Your task to perform on an android device: Open Google Maps Image 0: 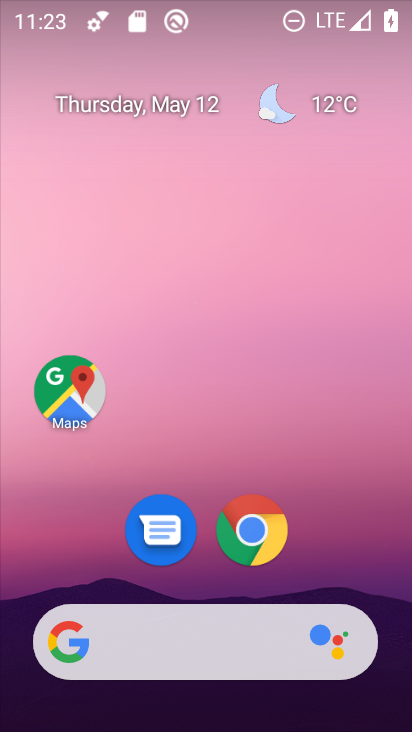
Step 0: click (69, 396)
Your task to perform on an android device: Open Google Maps Image 1: 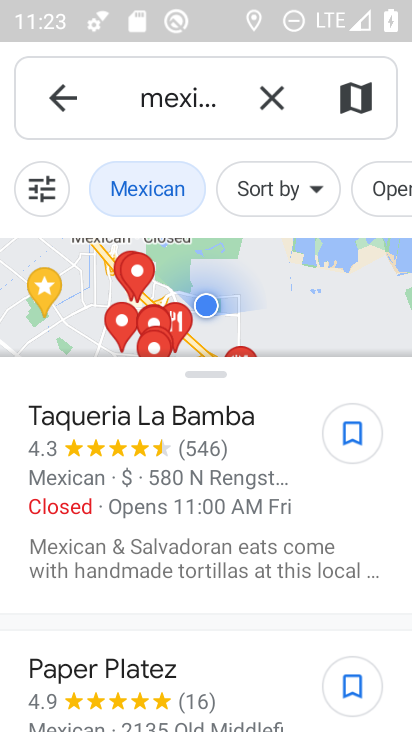
Step 1: click (69, 112)
Your task to perform on an android device: Open Google Maps Image 2: 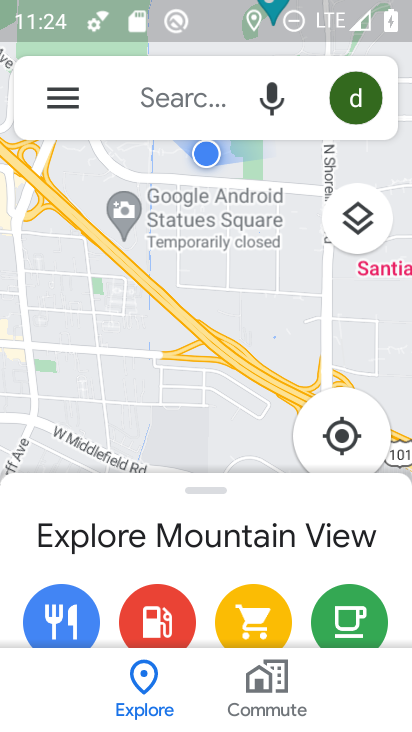
Step 2: task complete